Your task to perform on an android device: See recent photos Image 0: 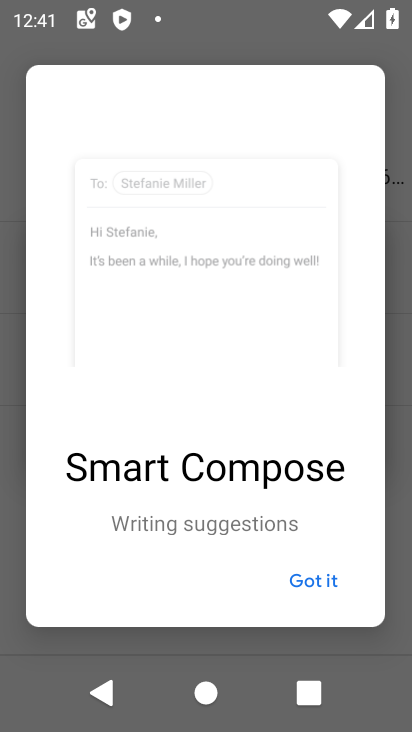
Step 0: press home button
Your task to perform on an android device: See recent photos Image 1: 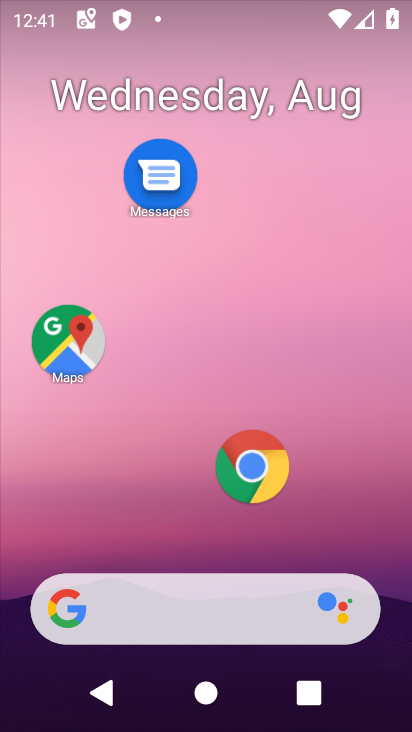
Step 1: drag from (179, 556) to (214, 125)
Your task to perform on an android device: See recent photos Image 2: 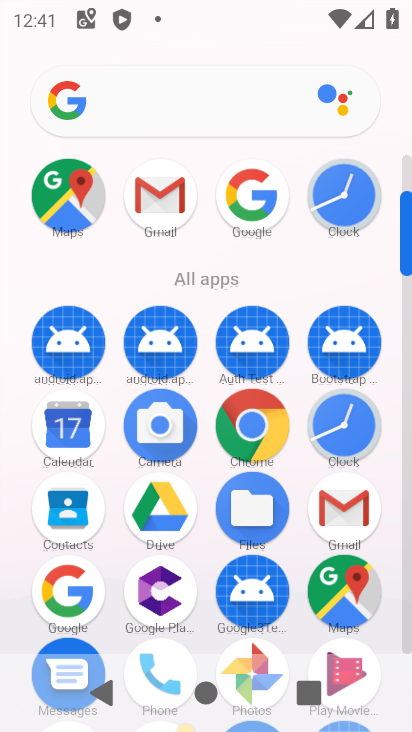
Step 2: click (252, 641)
Your task to perform on an android device: See recent photos Image 3: 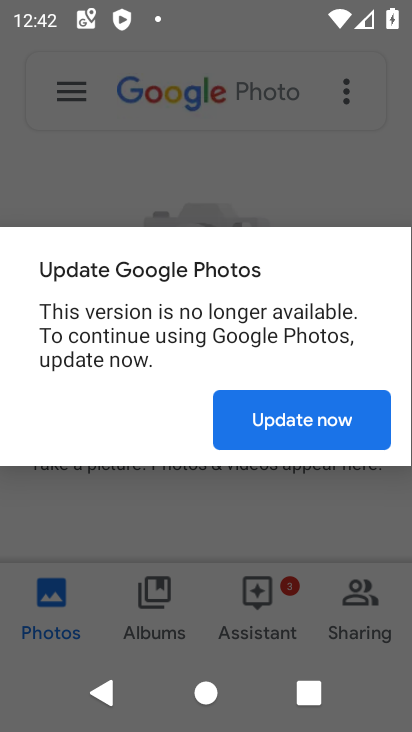
Step 3: task complete